Your task to perform on an android device: Search for custom t-shirts on Etsy. Image 0: 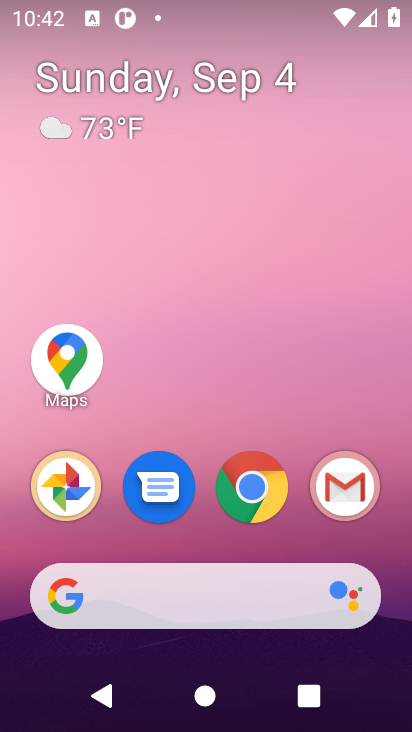
Step 0: click (137, 597)
Your task to perform on an android device: Search for custom t-shirts on Etsy. Image 1: 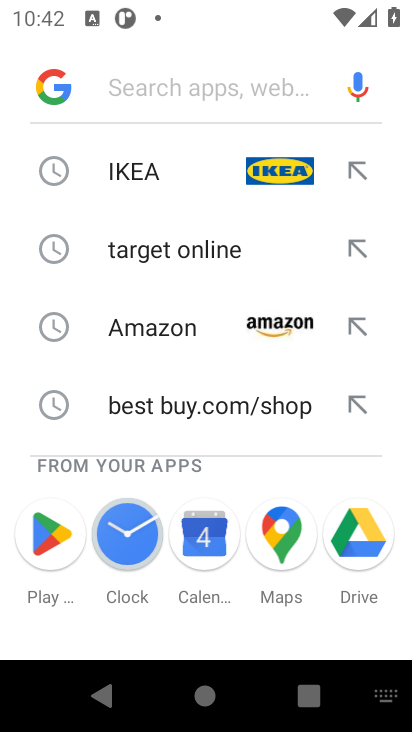
Step 1: type "etsy"
Your task to perform on an android device: Search for custom t-shirts on Etsy. Image 2: 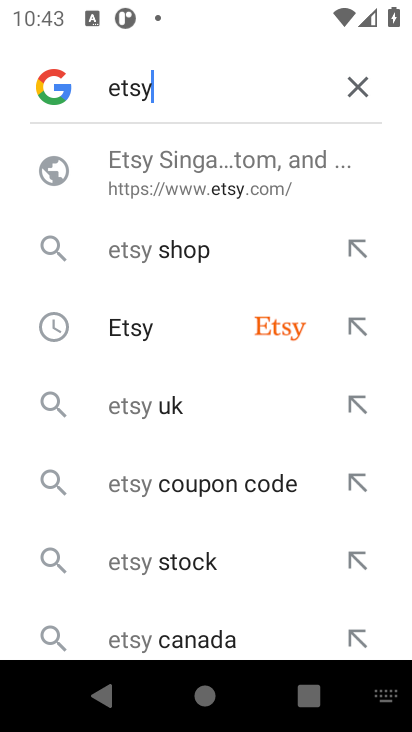
Step 2: click (148, 346)
Your task to perform on an android device: Search for custom t-shirts on Etsy. Image 3: 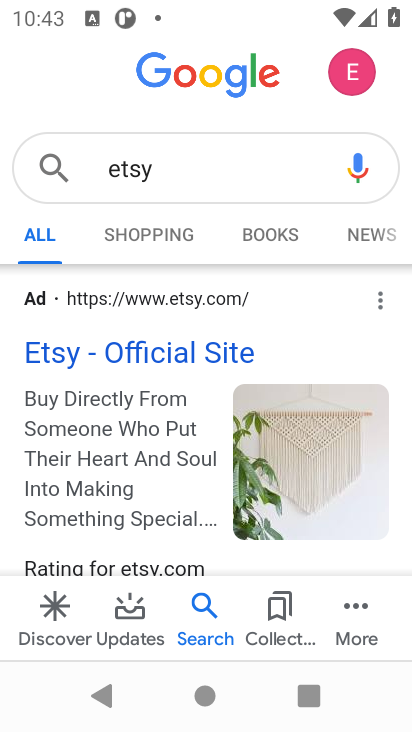
Step 3: click (81, 356)
Your task to perform on an android device: Search for custom t-shirts on Etsy. Image 4: 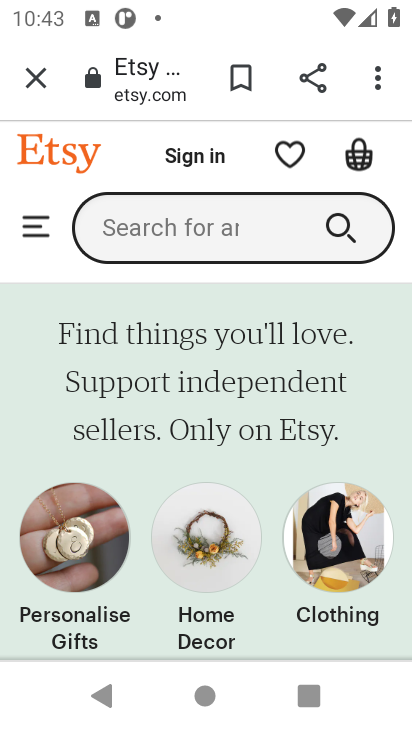
Step 4: click (187, 222)
Your task to perform on an android device: Search for custom t-shirts on Etsy. Image 5: 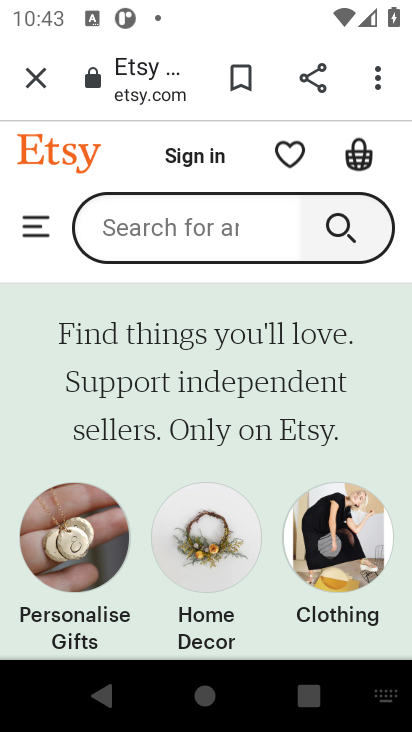
Step 5: type "custom t-shirts "
Your task to perform on an android device: Search for custom t-shirts on Etsy. Image 6: 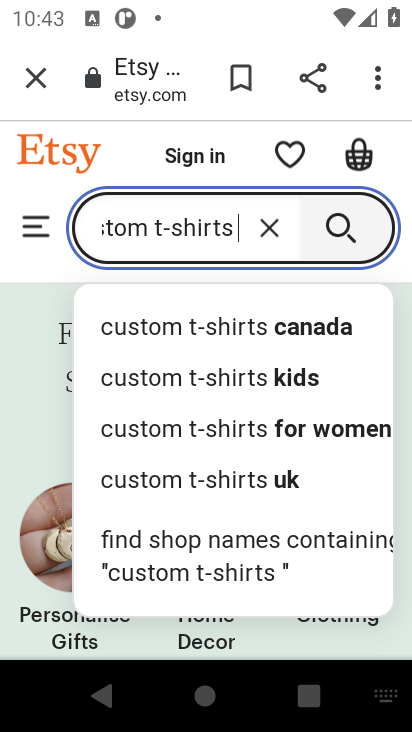
Step 6: click (345, 236)
Your task to perform on an android device: Search for custom t-shirts on Etsy. Image 7: 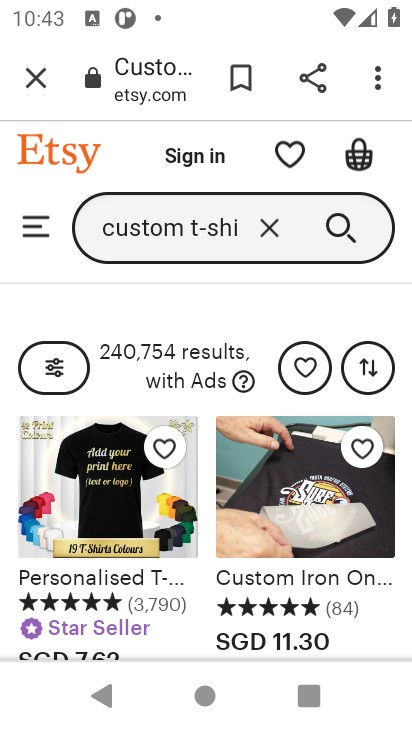
Step 7: task complete